Your task to perform on an android device: open sync settings in chrome Image 0: 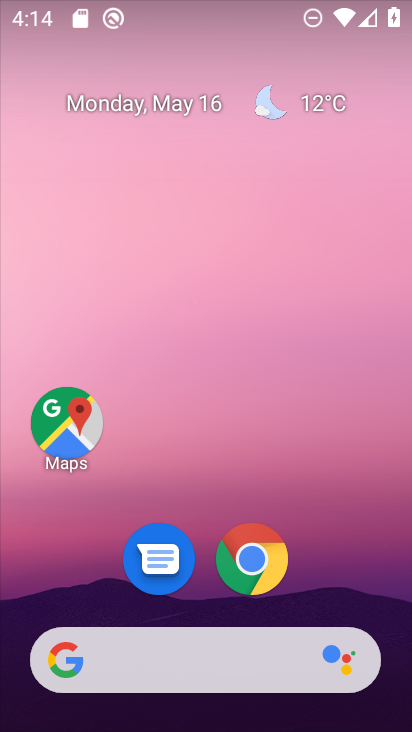
Step 0: click (259, 550)
Your task to perform on an android device: open sync settings in chrome Image 1: 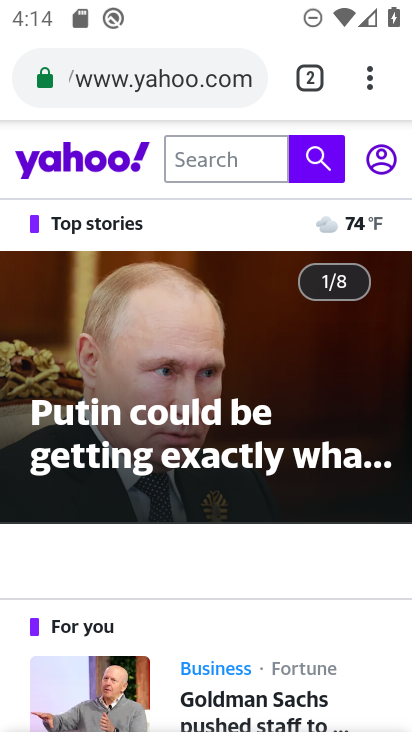
Step 1: click (371, 78)
Your task to perform on an android device: open sync settings in chrome Image 2: 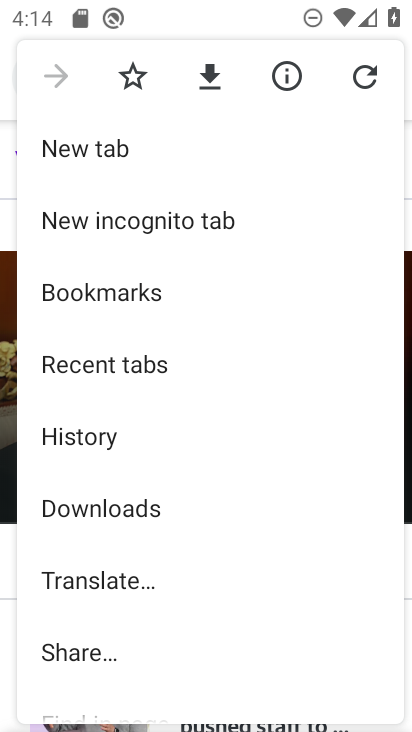
Step 2: drag from (181, 635) to (187, 318)
Your task to perform on an android device: open sync settings in chrome Image 3: 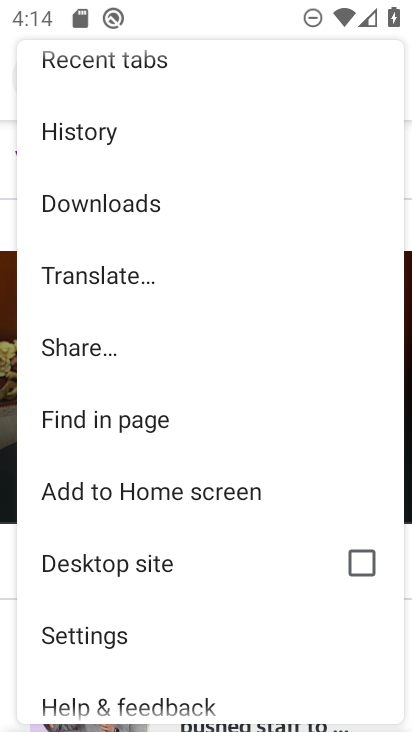
Step 3: click (105, 631)
Your task to perform on an android device: open sync settings in chrome Image 4: 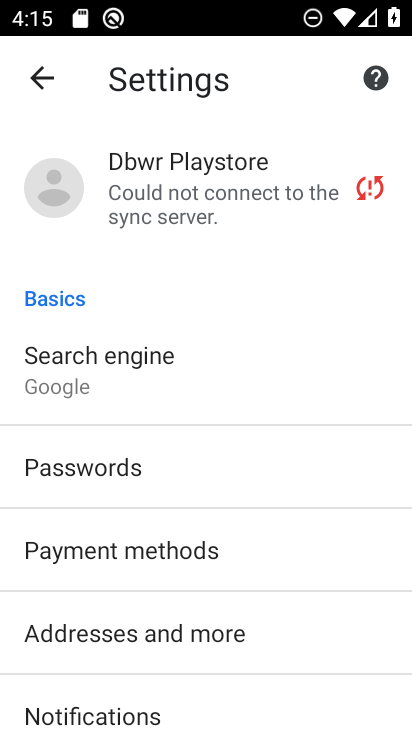
Step 4: click (190, 162)
Your task to perform on an android device: open sync settings in chrome Image 5: 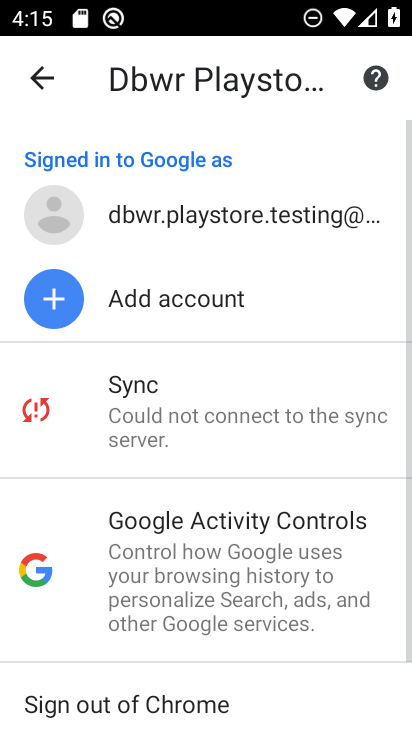
Step 5: click (178, 408)
Your task to perform on an android device: open sync settings in chrome Image 6: 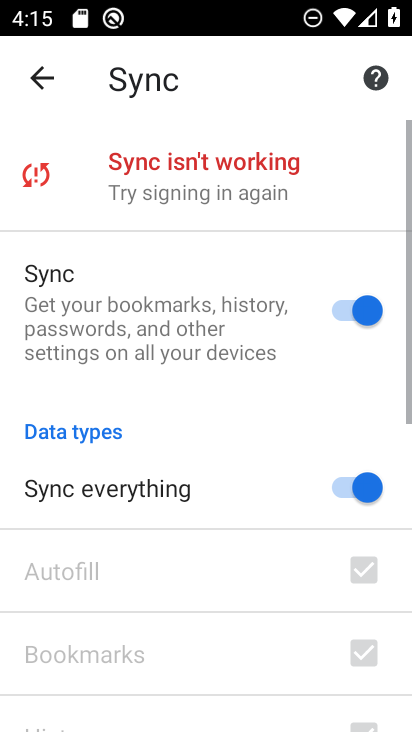
Step 6: task complete